Your task to perform on an android device: turn on the 24-hour format for clock Image 0: 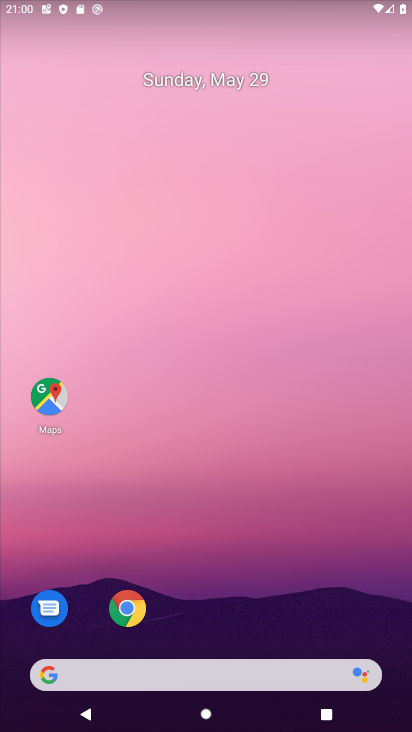
Step 0: drag from (358, 571) to (370, 221)
Your task to perform on an android device: turn on the 24-hour format for clock Image 1: 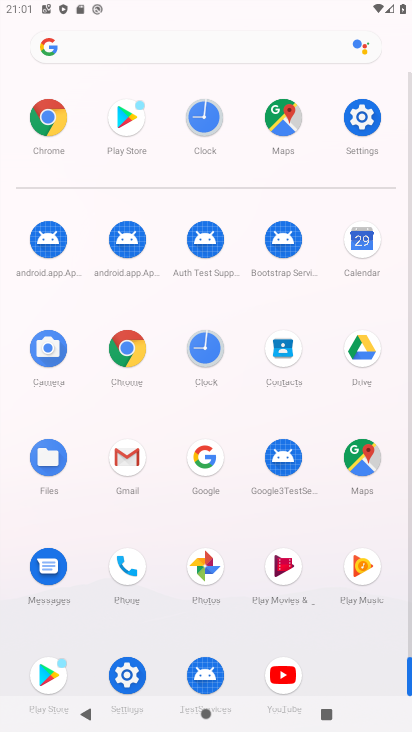
Step 1: click (209, 355)
Your task to perform on an android device: turn on the 24-hour format for clock Image 2: 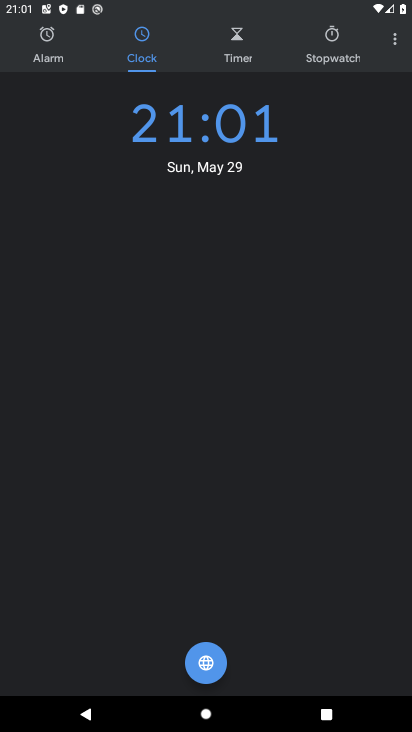
Step 2: click (396, 42)
Your task to perform on an android device: turn on the 24-hour format for clock Image 3: 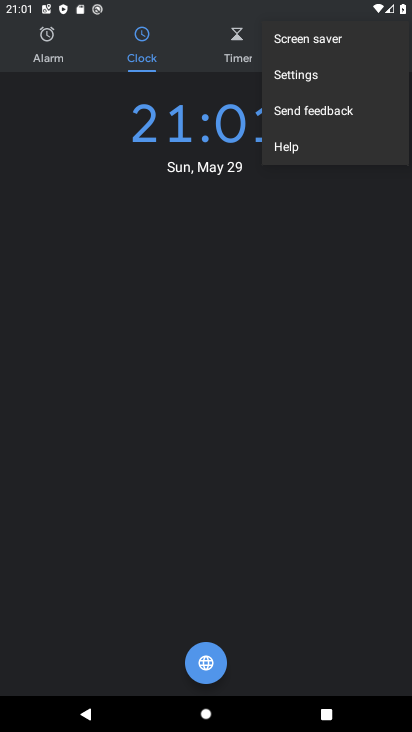
Step 3: click (308, 81)
Your task to perform on an android device: turn on the 24-hour format for clock Image 4: 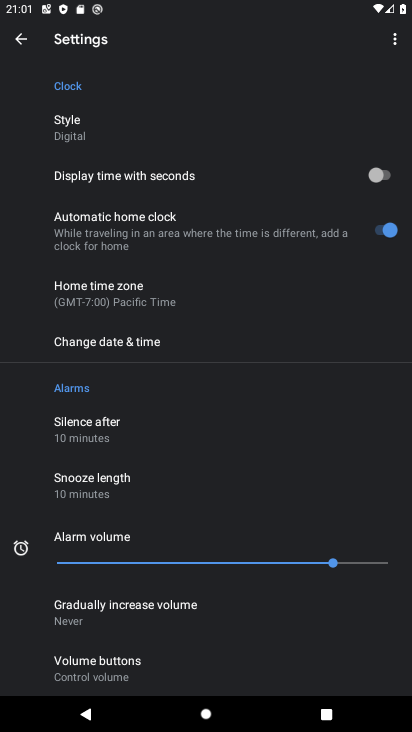
Step 4: click (182, 345)
Your task to perform on an android device: turn on the 24-hour format for clock Image 5: 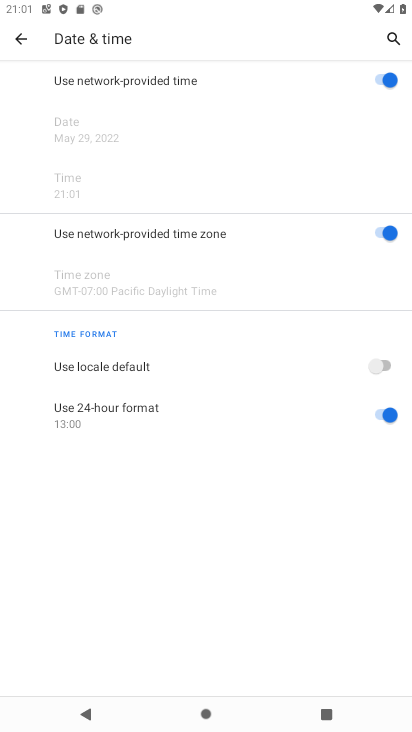
Step 5: task complete